Your task to perform on an android device: add a contact in the contacts app Image 0: 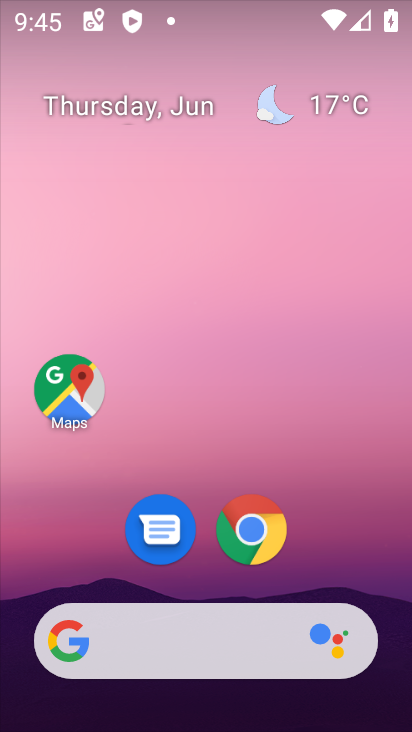
Step 0: drag from (390, 595) to (261, 5)
Your task to perform on an android device: add a contact in the contacts app Image 1: 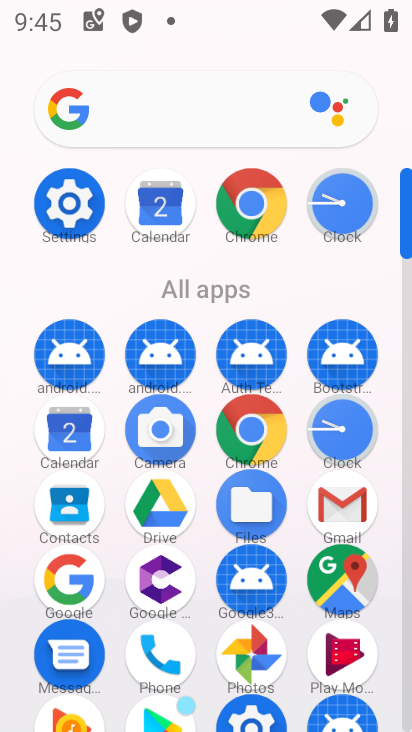
Step 1: click (405, 663)
Your task to perform on an android device: add a contact in the contacts app Image 2: 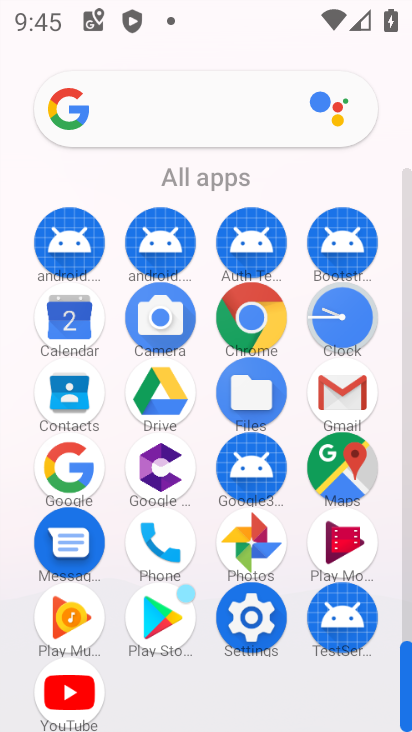
Step 2: click (63, 392)
Your task to perform on an android device: add a contact in the contacts app Image 3: 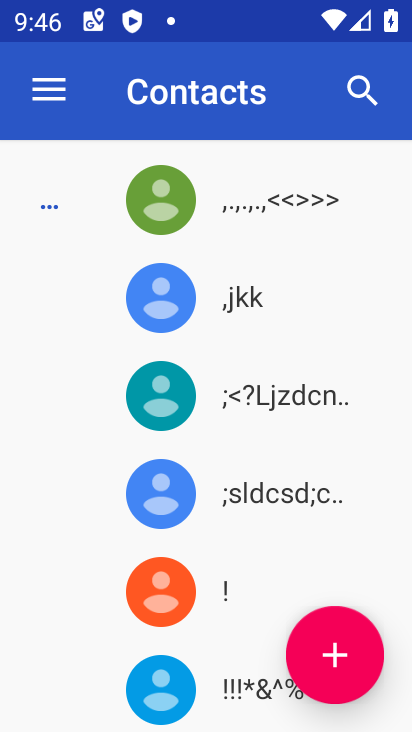
Step 3: click (324, 655)
Your task to perform on an android device: add a contact in the contacts app Image 4: 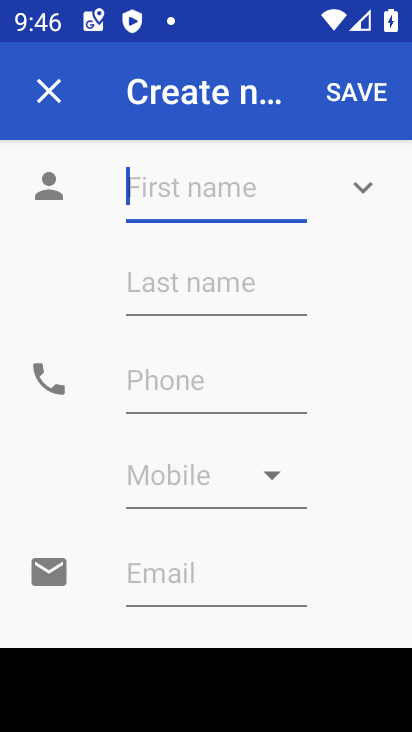
Step 4: type "iuytrfdcvb "
Your task to perform on an android device: add a contact in the contacts app Image 5: 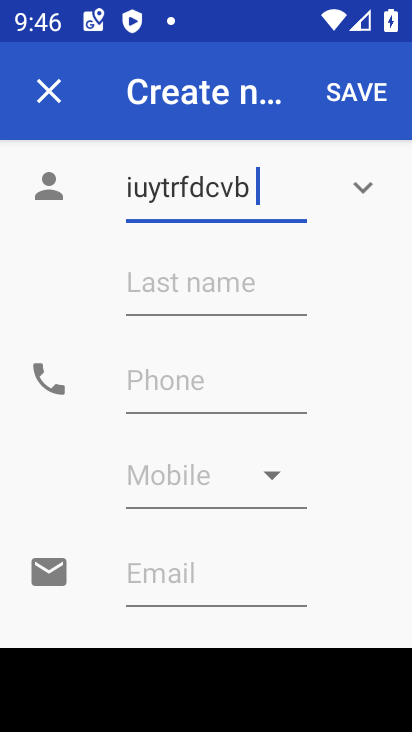
Step 5: click (151, 390)
Your task to perform on an android device: add a contact in the contacts app Image 6: 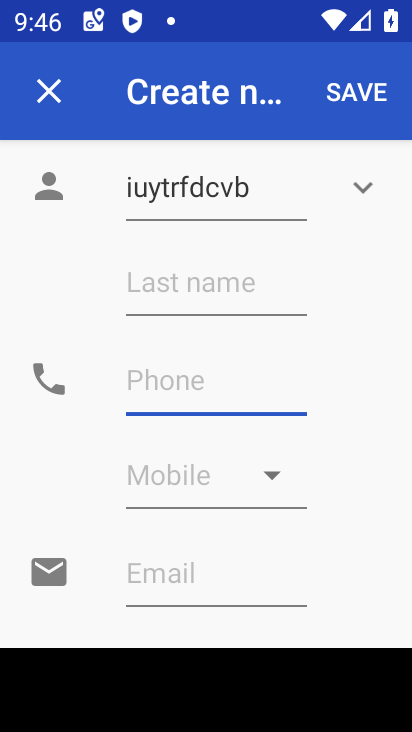
Step 6: type "876543457689"
Your task to perform on an android device: add a contact in the contacts app Image 7: 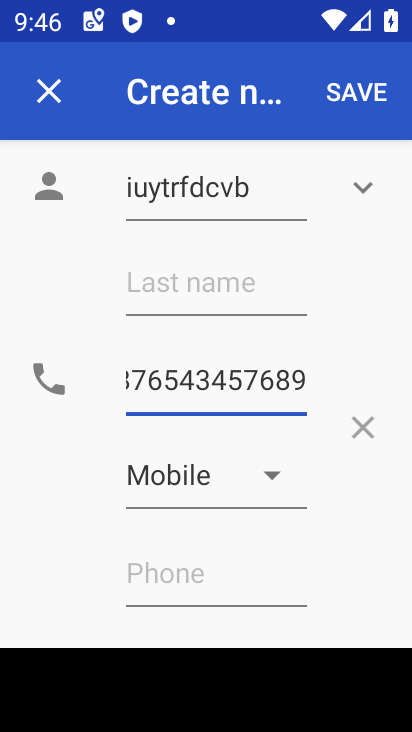
Step 7: click (270, 482)
Your task to perform on an android device: add a contact in the contacts app Image 8: 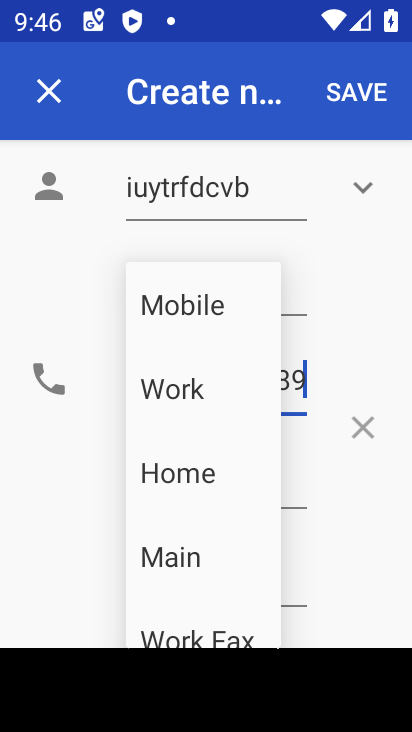
Step 8: click (174, 384)
Your task to perform on an android device: add a contact in the contacts app Image 9: 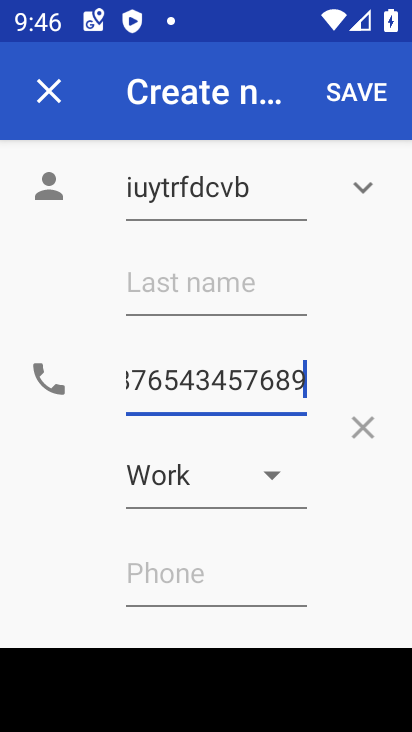
Step 9: click (362, 89)
Your task to perform on an android device: add a contact in the contacts app Image 10: 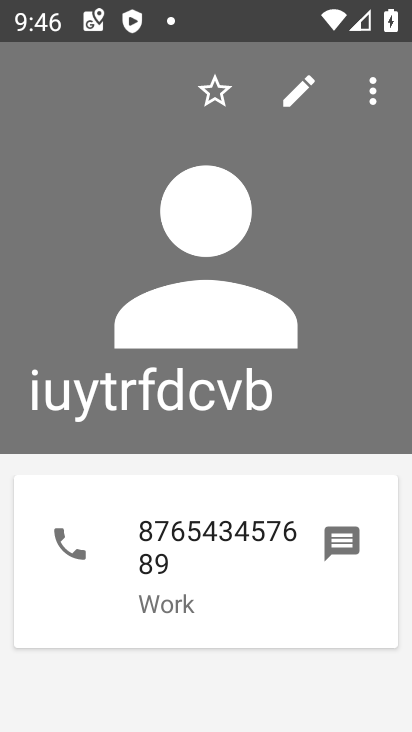
Step 10: task complete